Your task to perform on an android device: What's on my calendar today? Image 0: 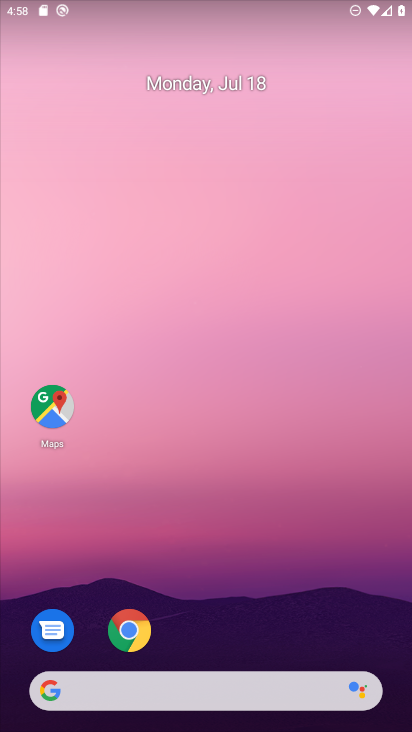
Step 0: press home button
Your task to perform on an android device: What's on my calendar today? Image 1: 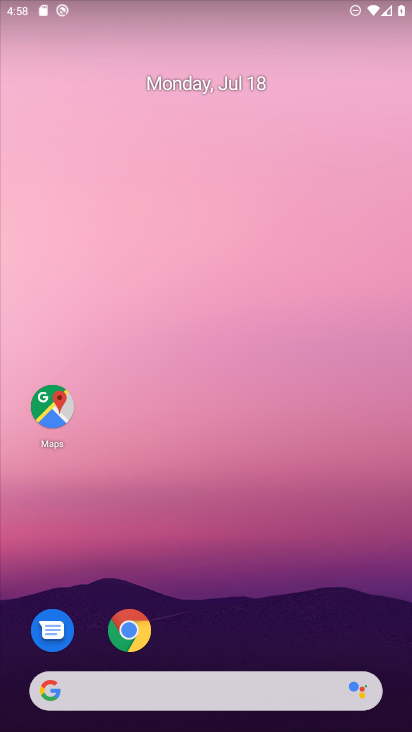
Step 1: drag from (250, 638) to (273, 312)
Your task to perform on an android device: What's on my calendar today? Image 2: 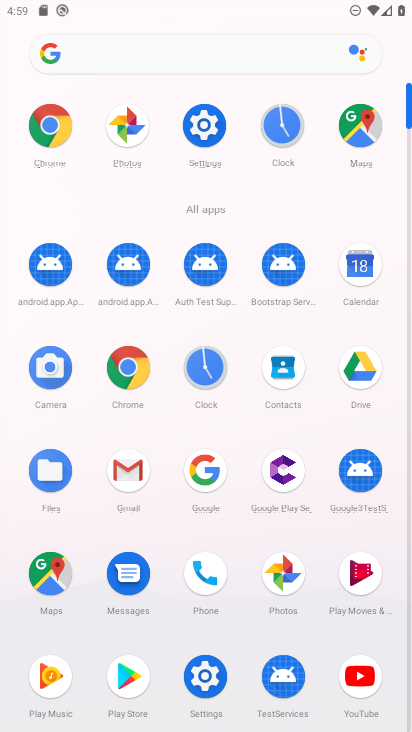
Step 2: click (359, 263)
Your task to perform on an android device: What's on my calendar today? Image 3: 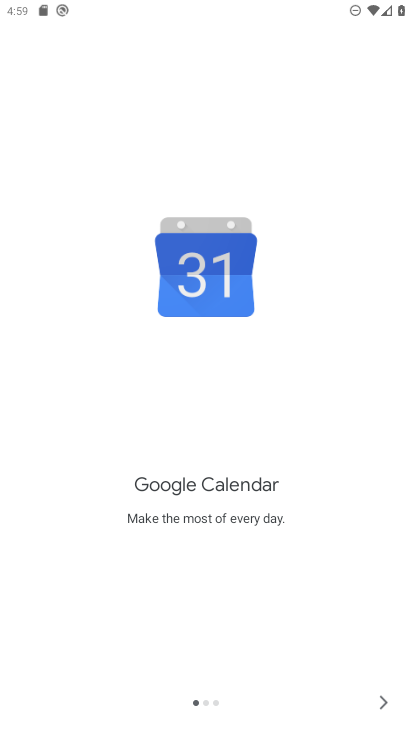
Step 3: click (379, 698)
Your task to perform on an android device: What's on my calendar today? Image 4: 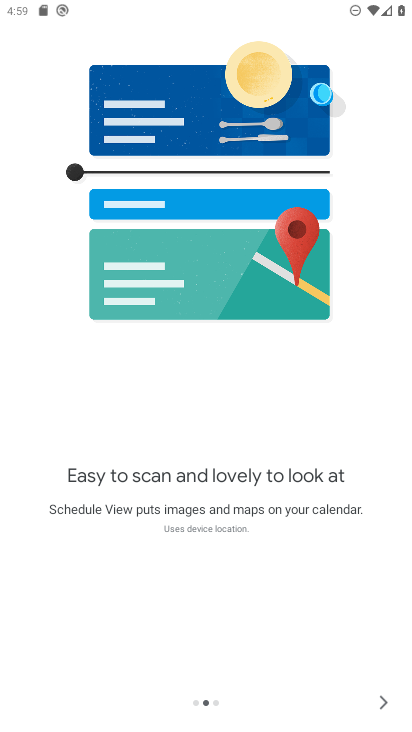
Step 4: click (381, 700)
Your task to perform on an android device: What's on my calendar today? Image 5: 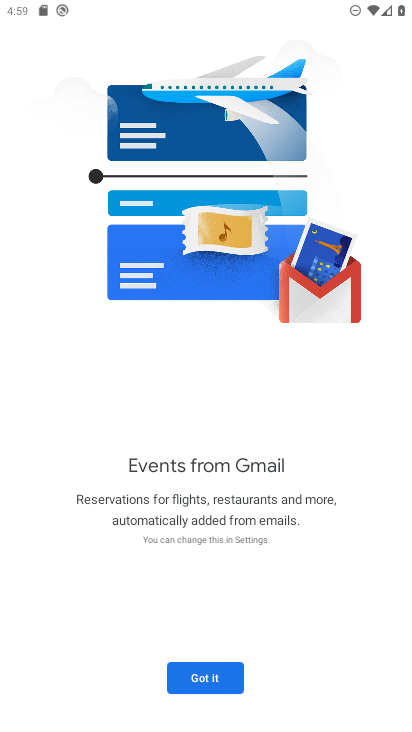
Step 5: click (228, 672)
Your task to perform on an android device: What's on my calendar today? Image 6: 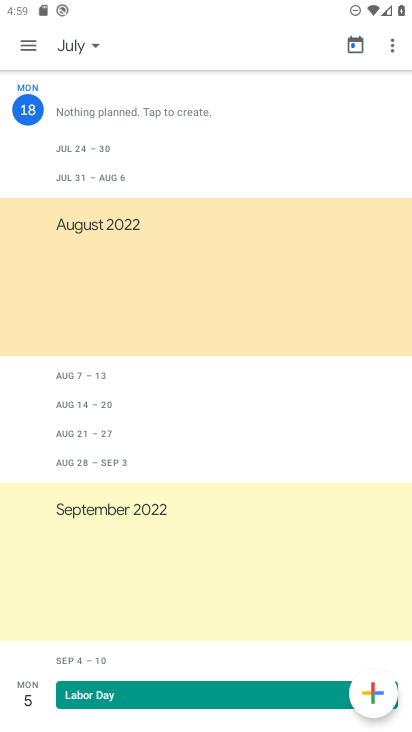
Step 6: click (34, 107)
Your task to perform on an android device: What's on my calendar today? Image 7: 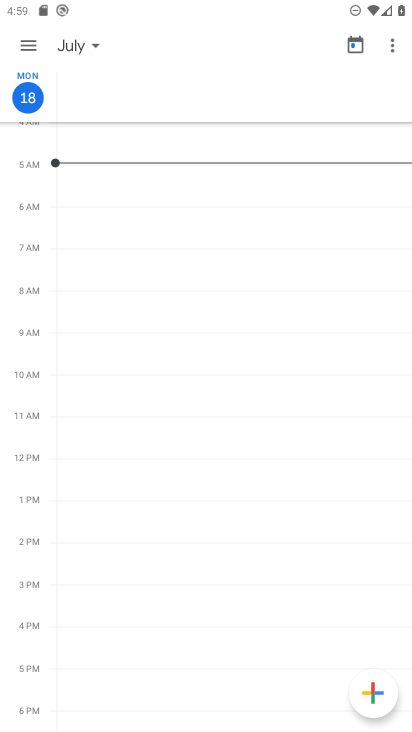
Step 7: task complete